Your task to perform on an android device: see tabs open on other devices in the chrome app Image 0: 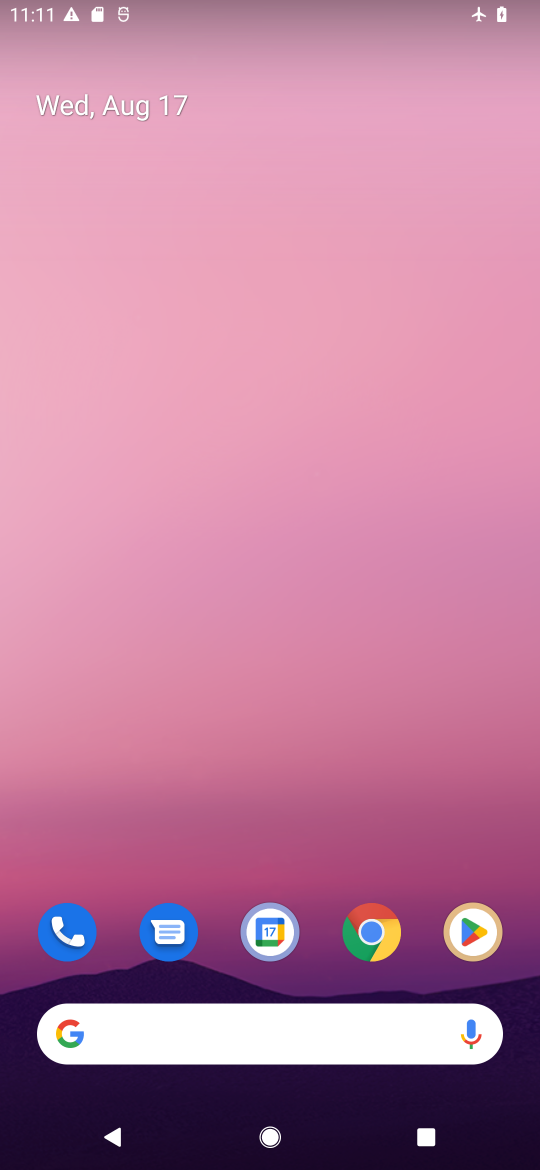
Step 0: click (355, 939)
Your task to perform on an android device: see tabs open on other devices in the chrome app Image 1: 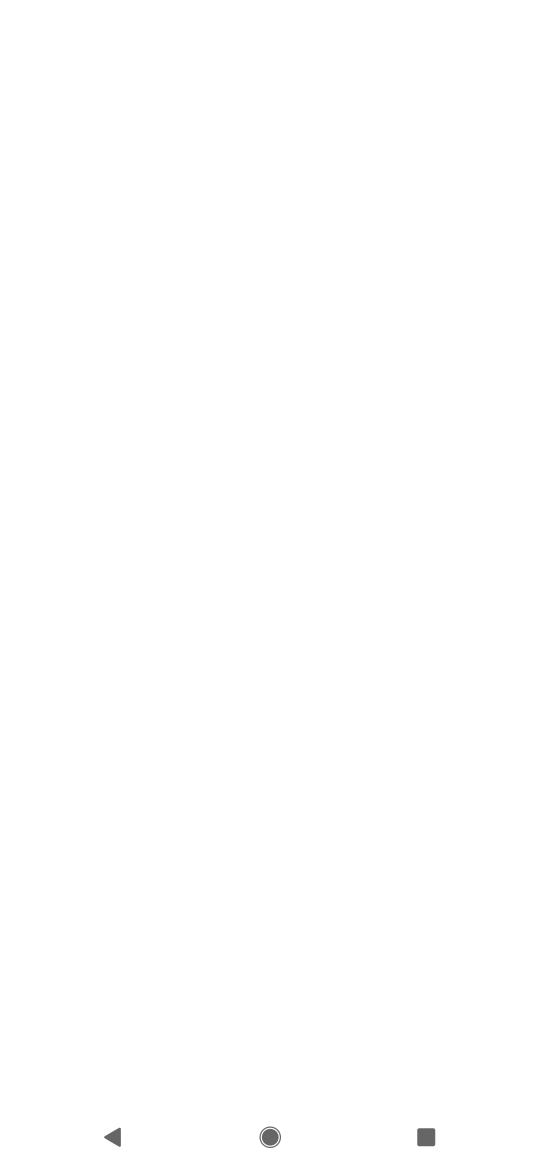
Step 1: task complete